Your task to perform on an android device: change text size in settings app Image 0: 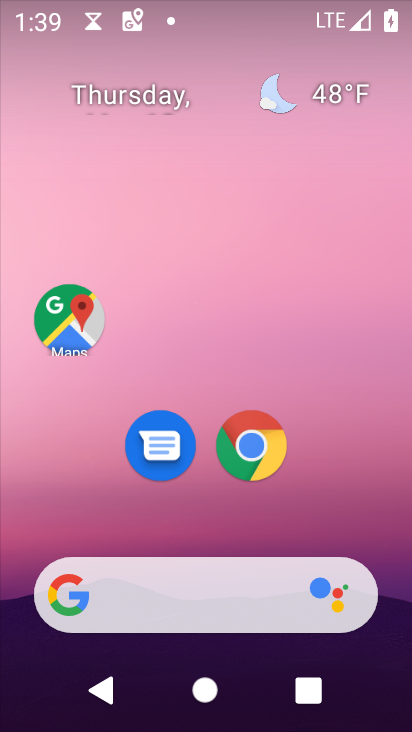
Step 0: drag from (296, 516) to (285, 107)
Your task to perform on an android device: change text size in settings app Image 1: 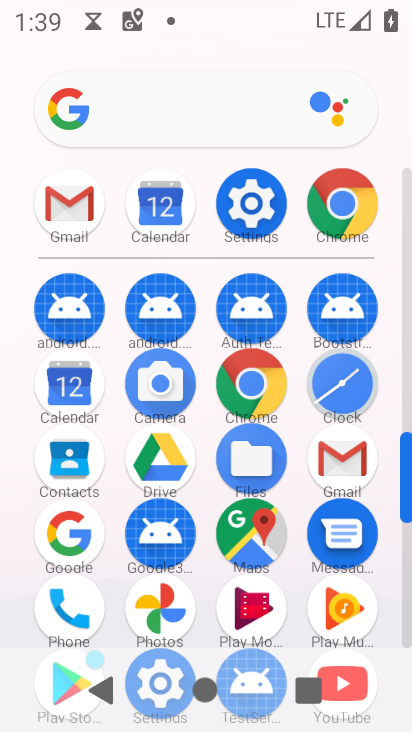
Step 1: click (257, 196)
Your task to perform on an android device: change text size in settings app Image 2: 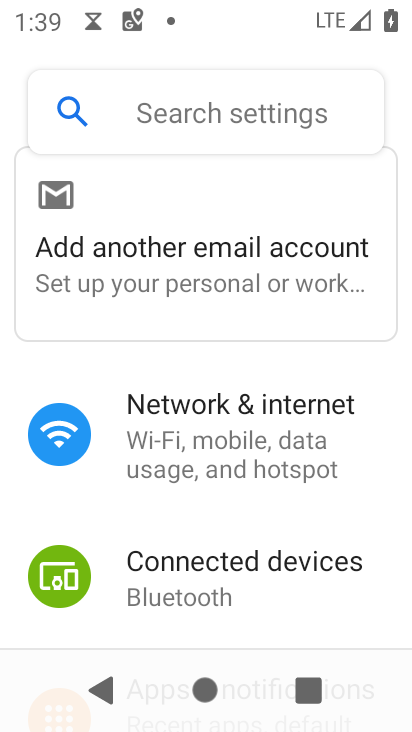
Step 2: drag from (302, 509) to (321, 150)
Your task to perform on an android device: change text size in settings app Image 3: 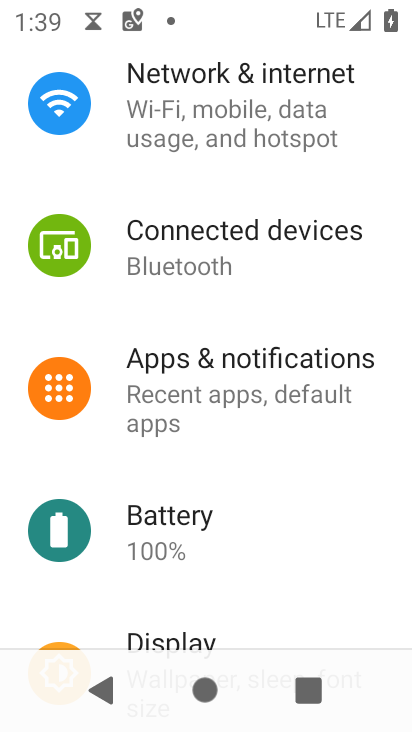
Step 3: drag from (312, 543) to (300, 164)
Your task to perform on an android device: change text size in settings app Image 4: 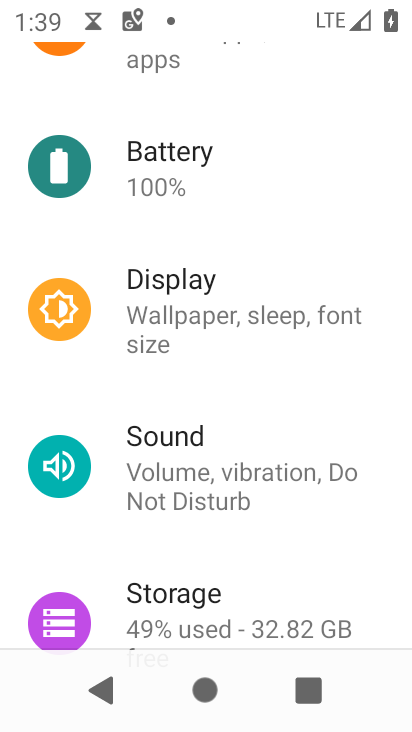
Step 4: drag from (295, 540) to (332, 163)
Your task to perform on an android device: change text size in settings app Image 5: 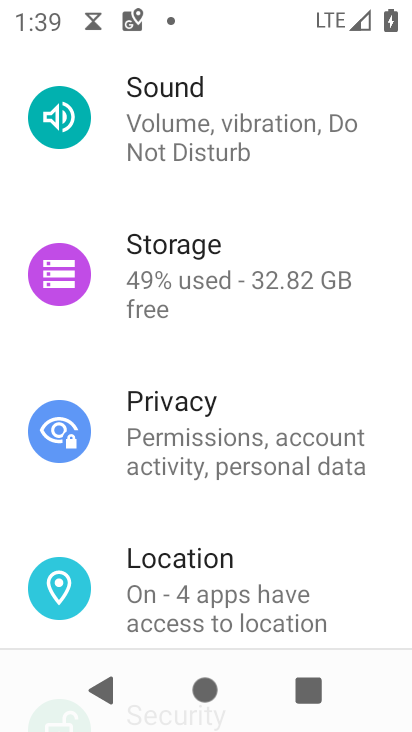
Step 5: drag from (266, 531) to (308, 153)
Your task to perform on an android device: change text size in settings app Image 6: 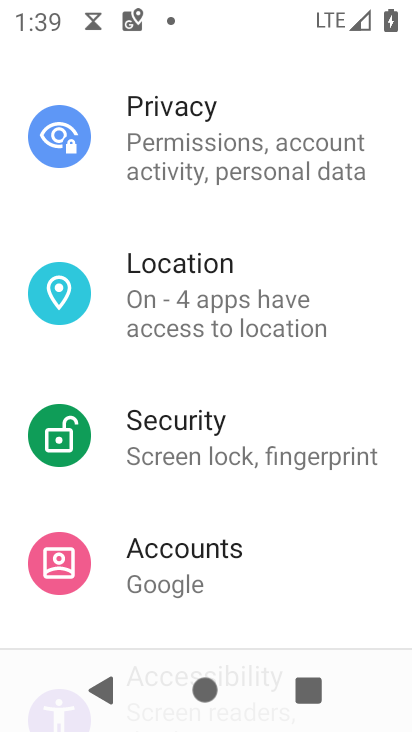
Step 6: drag from (226, 512) to (313, 151)
Your task to perform on an android device: change text size in settings app Image 7: 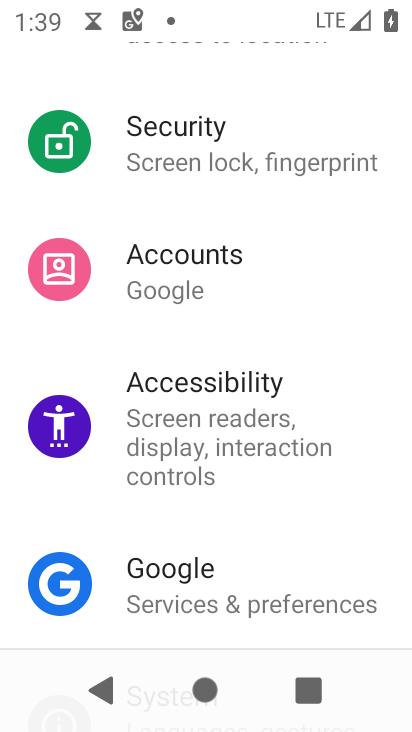
Step 7: drag from (166, 527) to (288, 155)
Your task to perform on an android device: change text size in settings app Image 8: 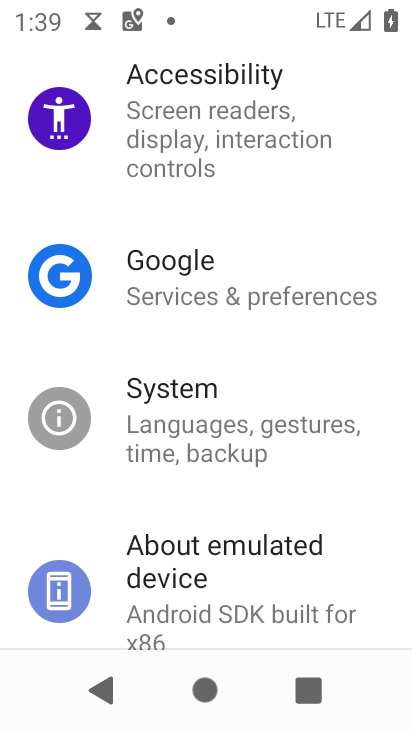
Step 8: drag from (289, 164) to (260, 572)
Your task to perform on an android device: change text size in settings app Image 9: 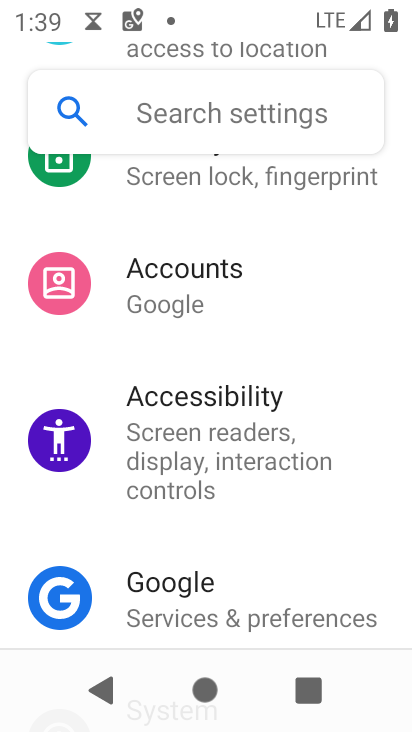
Step 9: drag from (257, 335) to (244, 589)
Your task to perform on an android device: change text size in settings app Image 10: 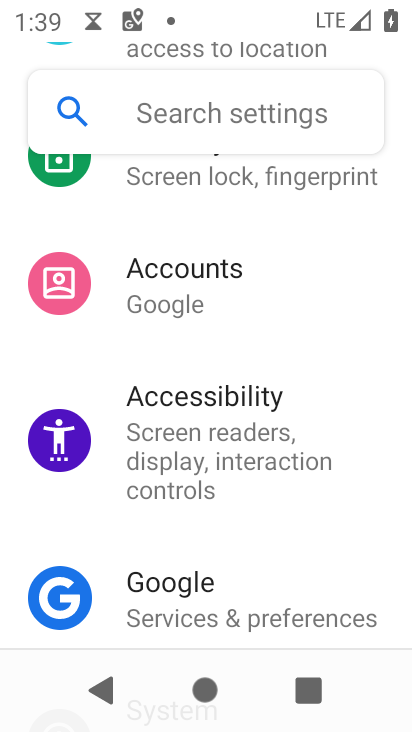
Step 10: drag from (293, 272) to (265, 630)
Your task to perform on an android device: change text size in settings app Image 11: 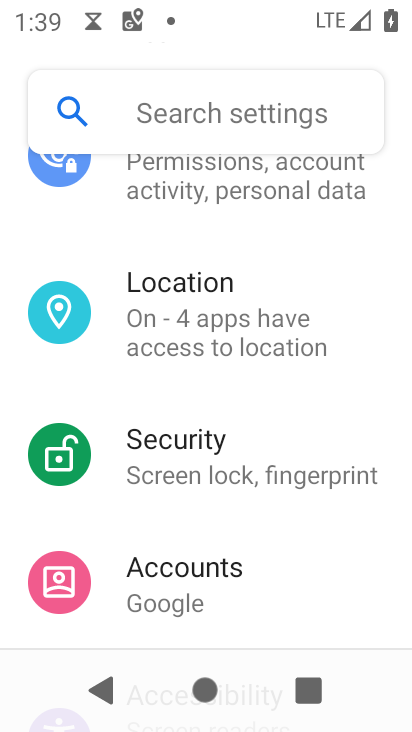
Step 11: drag from (334, 266) to (246, 595)
Your task to perform on an android device: change text size in settings app Image 12: 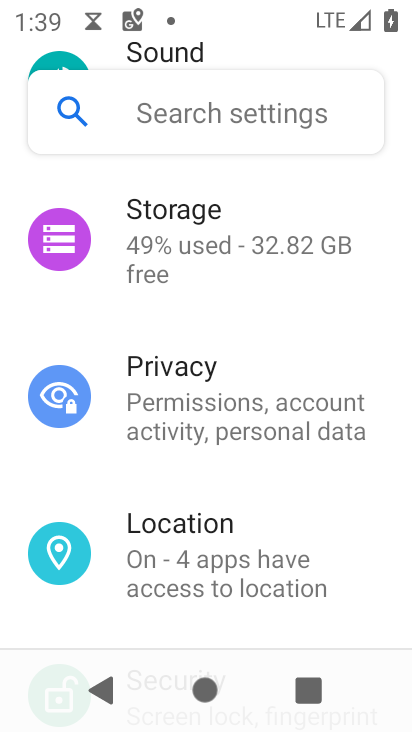
Step 12: drag from (252, 200) to (231, 598)
Your task to perform on an android device: change text size in settings app Image 13: 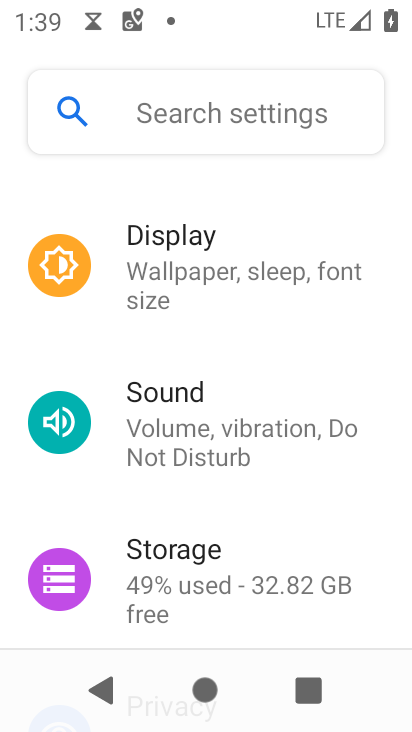
Step 13: drag from (255, 345) to (245, 531)
Your task to perform on an android device: change text size in settings app Image 14: 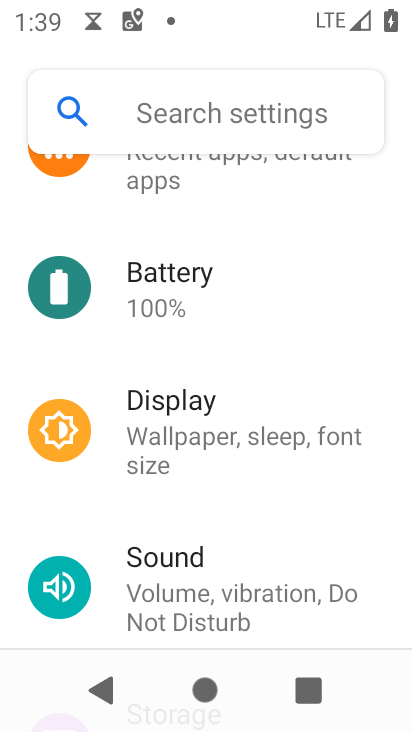
Step 14: click (232, 438)
Your task to perform on an android device: change text size in settings app Image 15: 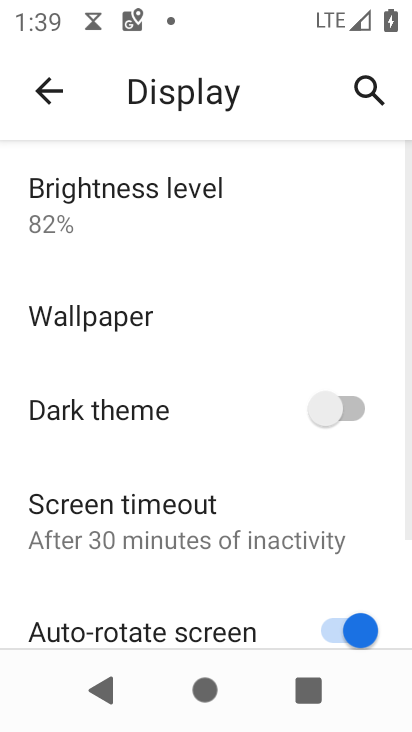
Step 15: drag from (213, 612) to (248, 215)
Your task to perform on an android device: change text size in settings app Image 16: 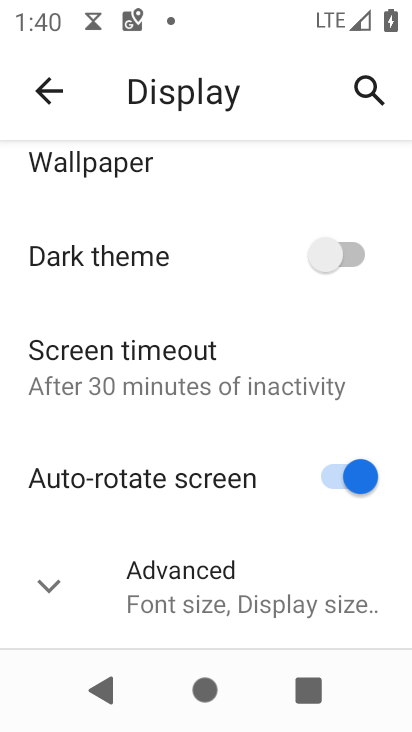
Step 16: click (214, 582)
Your task to perform on an android device: change text size in settings app Image 17: 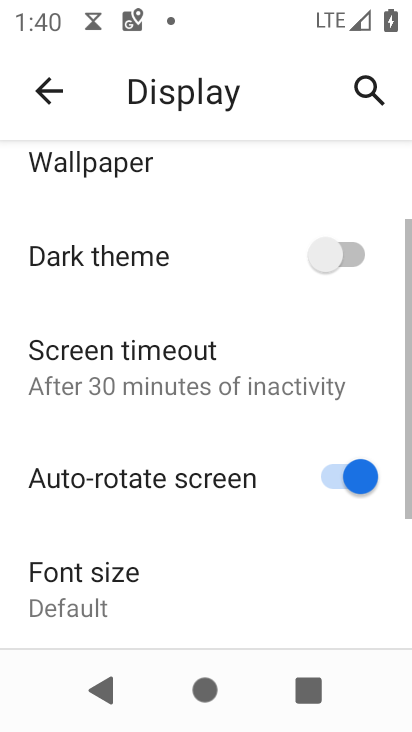
Step 17: drag from (215, 551) to (253, 266)
Your task to perform on an android device: change text size in settings app Image 18: 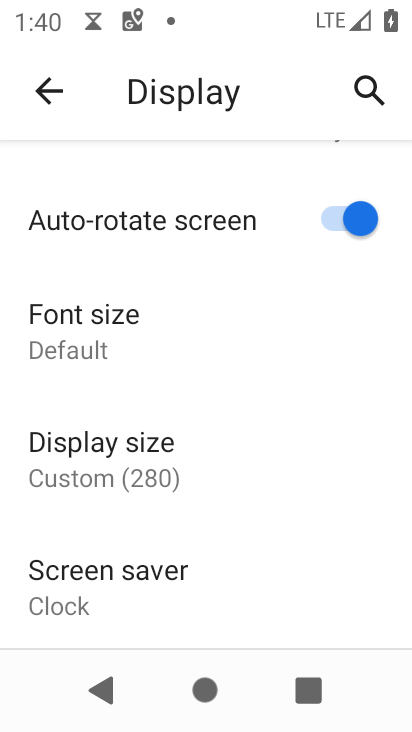
Step 18: click (109, 349)
Your task to perform on an android device: change text size in settings app Image 19: 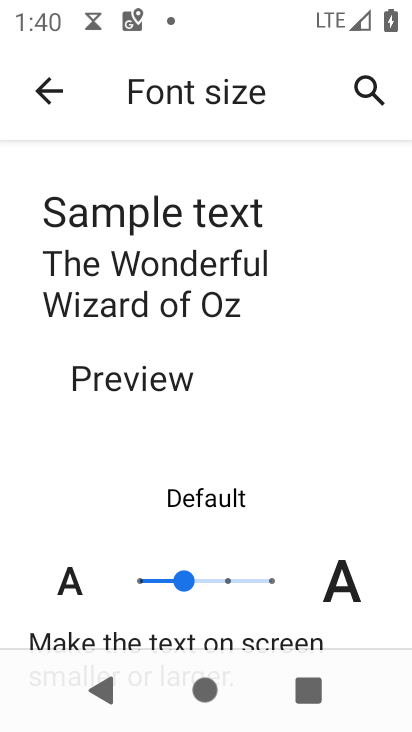
Step 19: task complete